Your task to perform on an android device: search for starred emails in the gmail app Image 0: 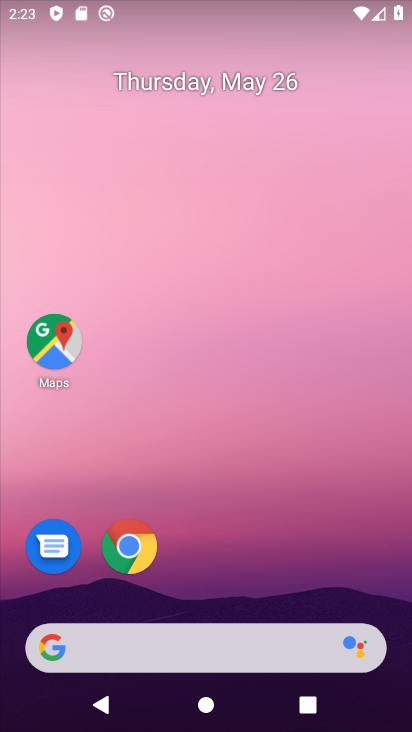
Step 0: drag from (394, 683) to (371, 172)
Your task to perform on an android device: search for starred emails in the gmail app Image 1: 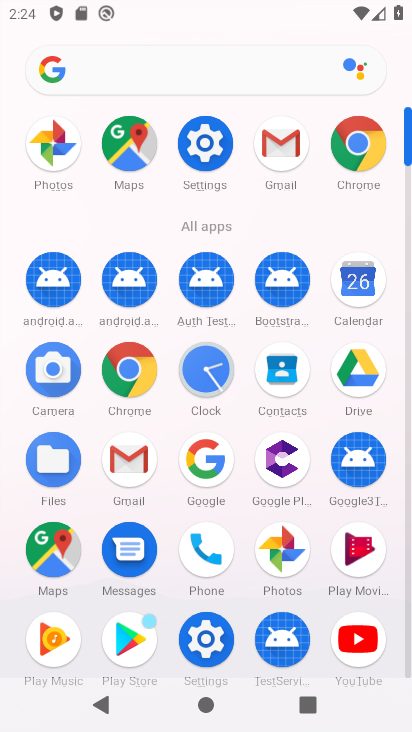
Step 1: click (269, 147)
Your task to perform on an android device: search for starred emails in the gmail app Image 2: 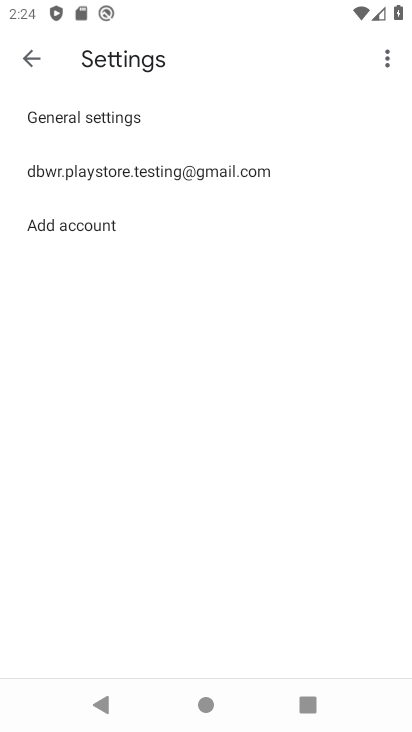
Step 2: click (30, 68)
Your task to perform on an android device: search for starred emails in the gmail app Image 3: 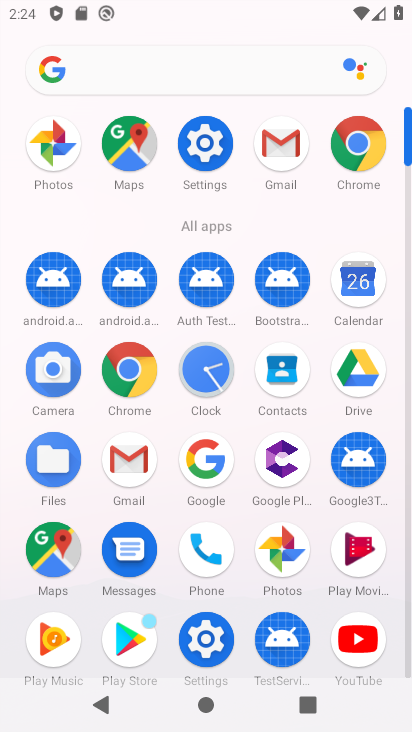
Step 3: click (134, 461)
Your task to perform on an android device: search for starred emails in the gmail app Image 4: 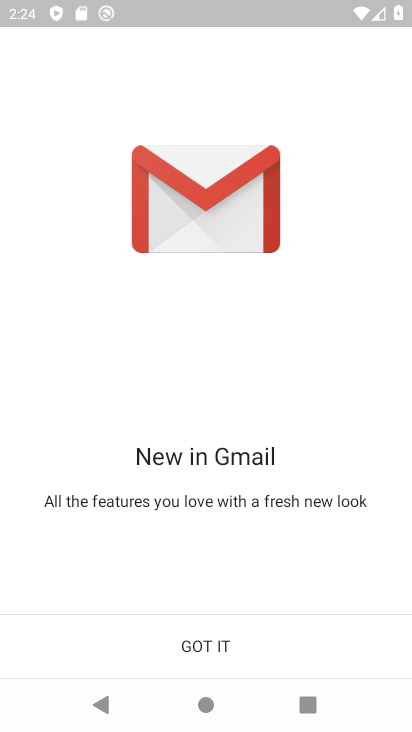
Step 4: click (206, 639)
Your task to perform on an android device: search for starred emails in the gmail app Image 5: 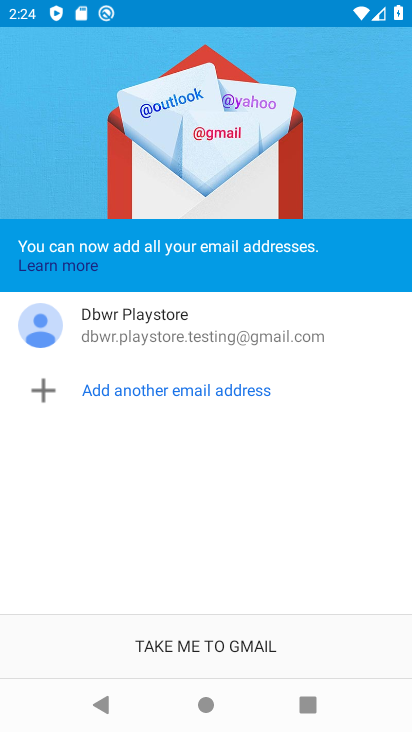
Step 5: click (207, 646)
Your task to perform on an android device: search for starred emails in the gmail app Image 6: 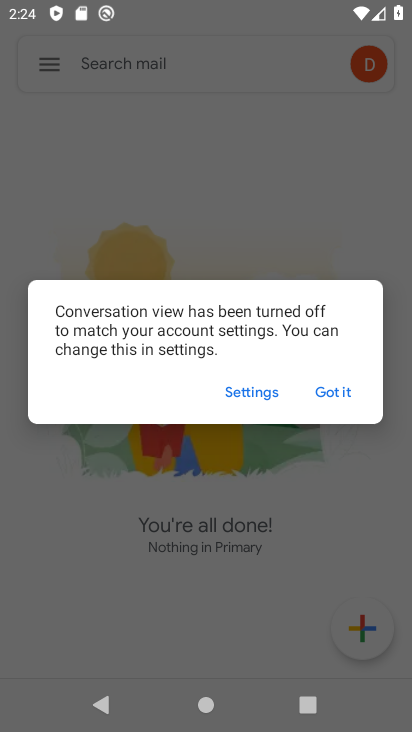
Step 6: click (324, 389)
Your task to perform on an android device: search for starred emails in the gmail app Image 7: 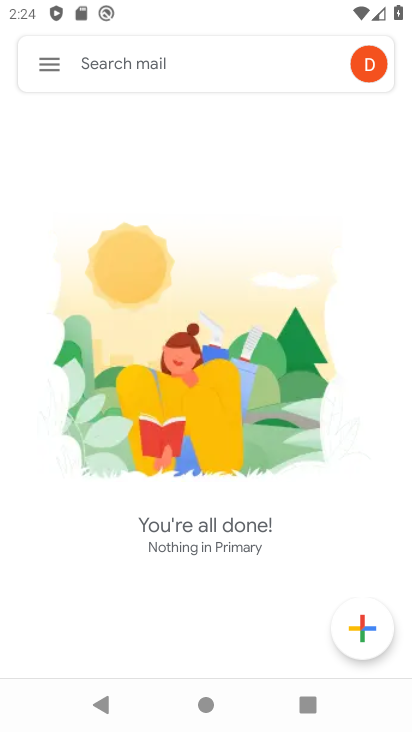
Step 7: click (53, 60)
Your task to perform on an android device: search for starred emails in the gmail app Image 8: 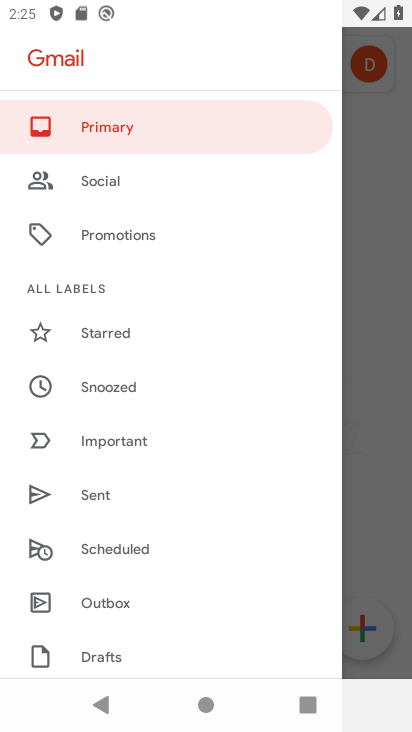
Step 8: click (99, 329)
Your task to perform on an android device: search for starred emails in the gmail app Image 9: 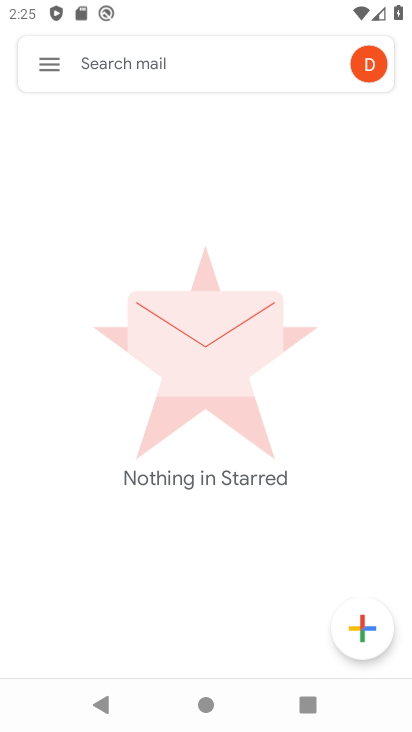
Step 9: task complete